Your task to perform on an android device: Search for vegetarian restaurants on Maps Image 0: 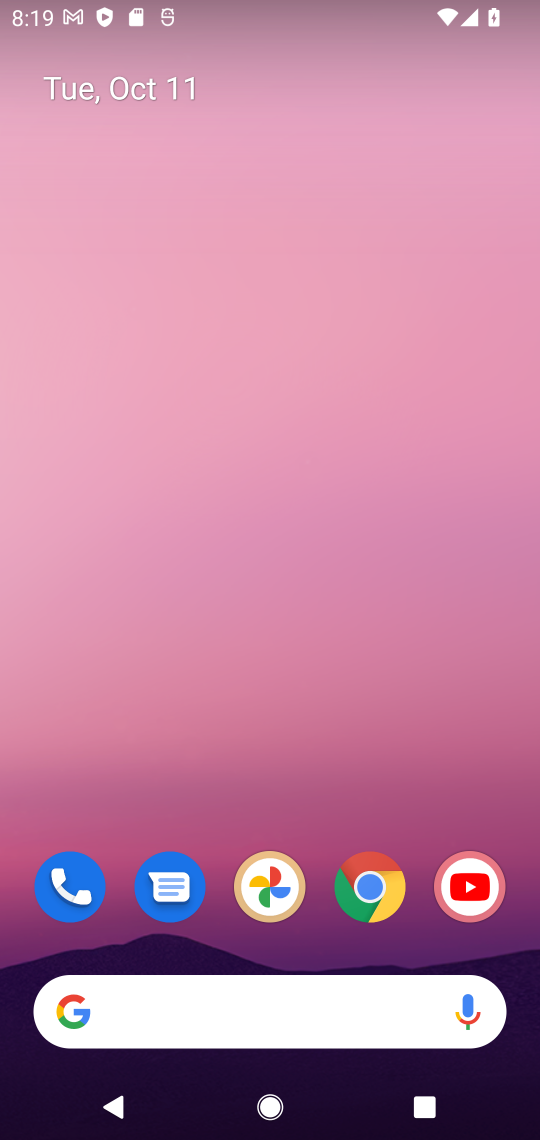
Step 0: drag from (332, 828) to (385, 335)
Your task to perform on an android device: Search for vegetarian restaurants on Maps Image 1: 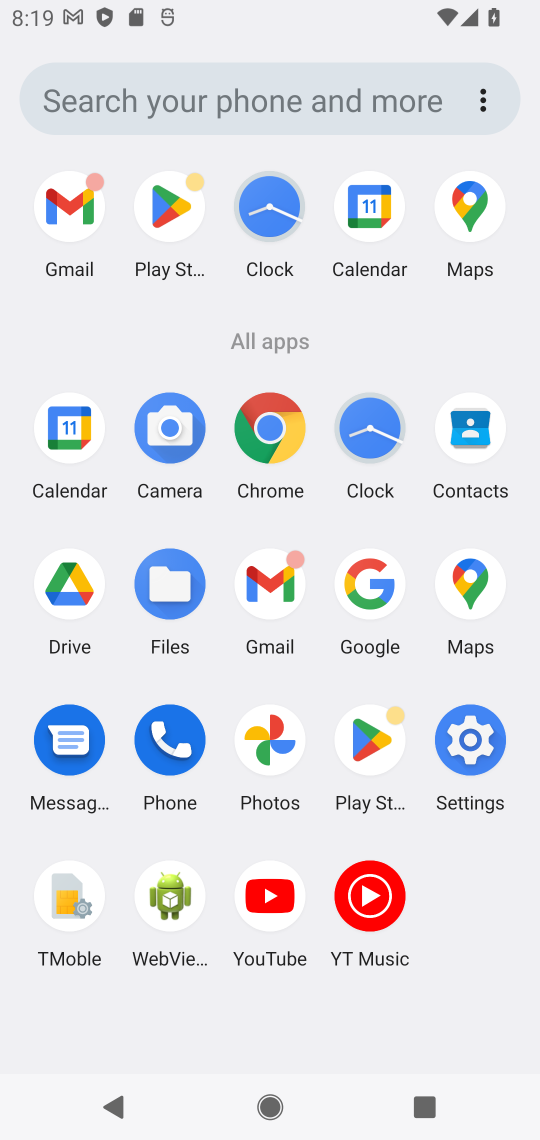
Step 1: click (460, 232)
Your task to perform on an android device: Search for vegetarian restaurants on Maps Image 2: 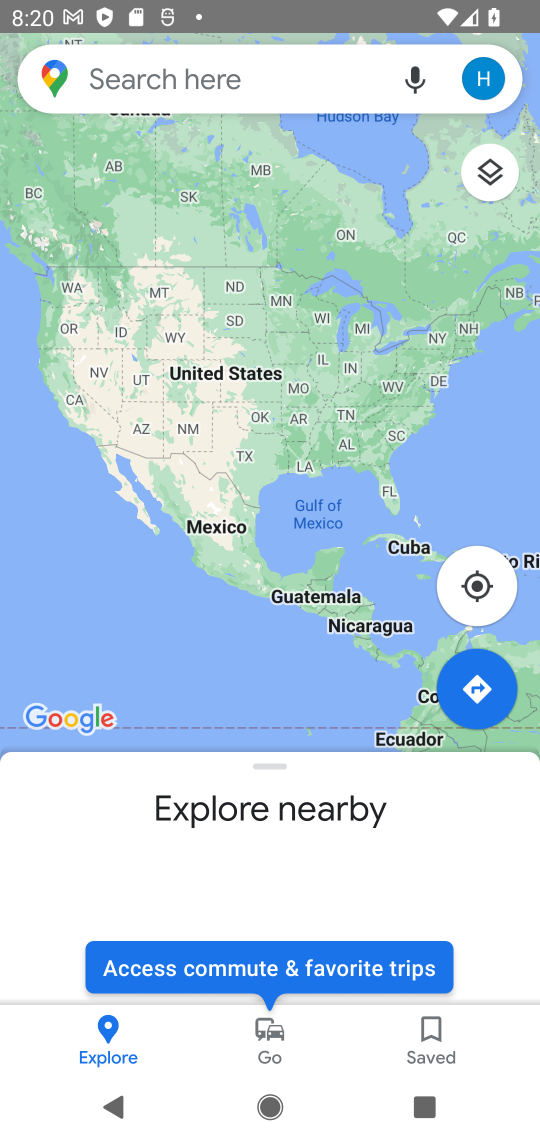
Step 2: click (310, 70)
Your task to perform on an android device: Search for vegetarian restaurants on Maps Image 3: 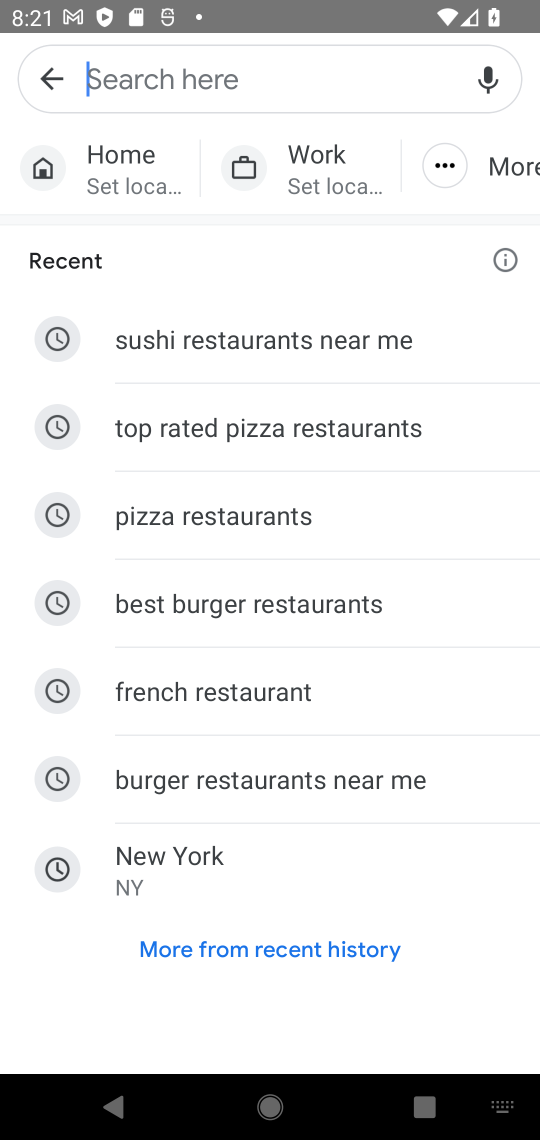
Step 3: type "vegetarian restaurants"
Your task to perform on an android device: Search for vegetarian restaurants on Maps Image 4: 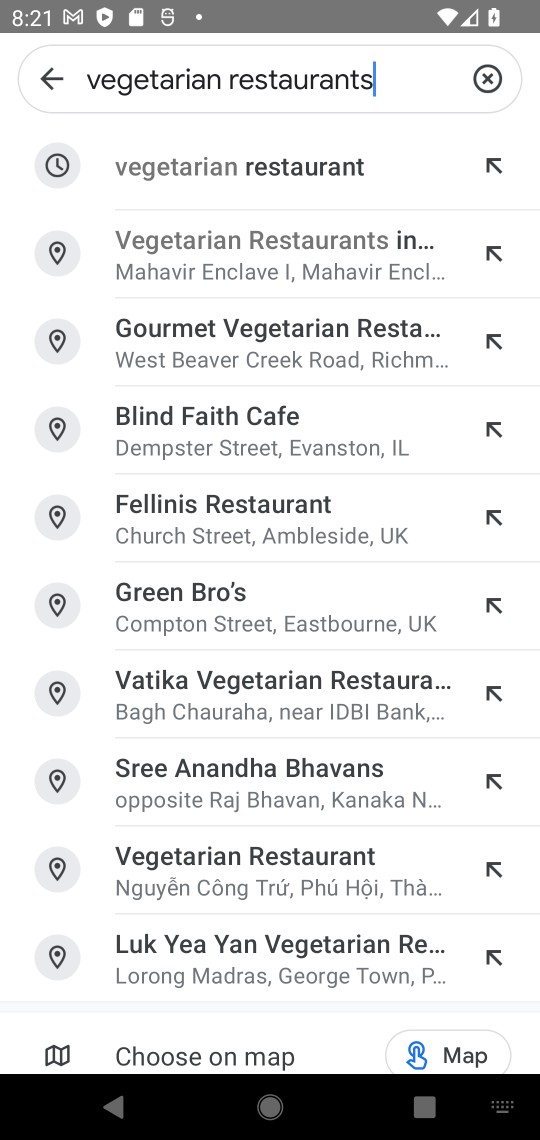
Step 4: click (254, 150)
Your task to perform on an android device: Search for vegetarian restaurants on Maps Image 5: 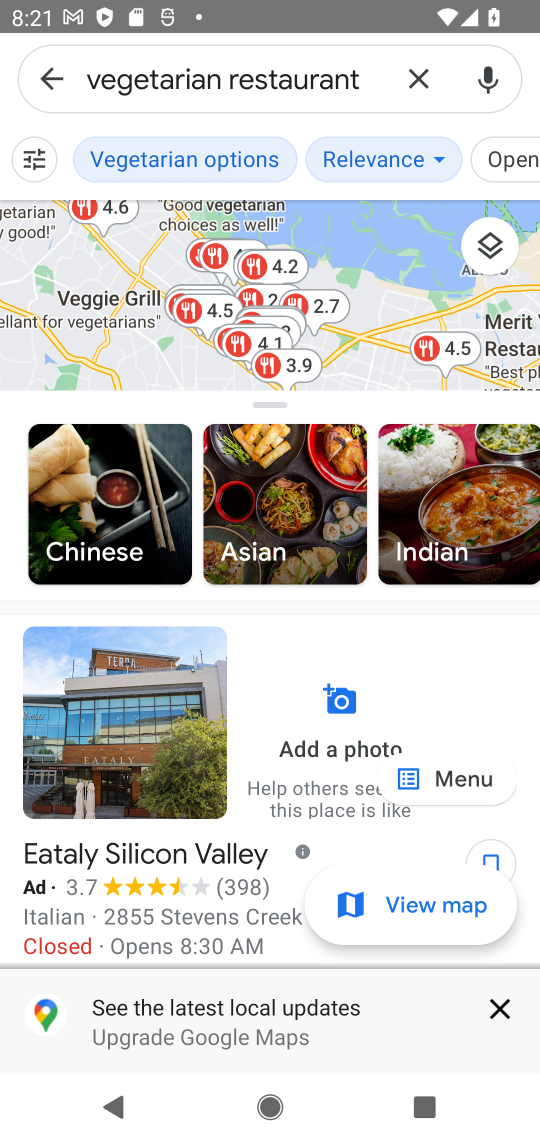
Step 5: task complete